Your task to perform on an android device: see tabs open on other devices in the chrome app Image 0: 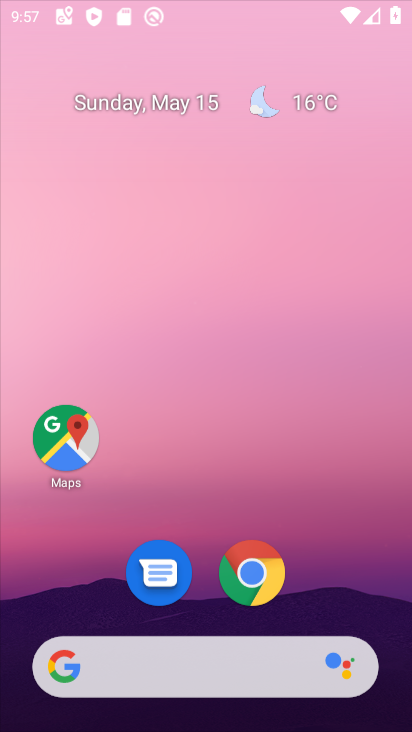
Step 0: press home button
Your task to perform on an android device: see tabs open on other devices in the chrome app Image 1: 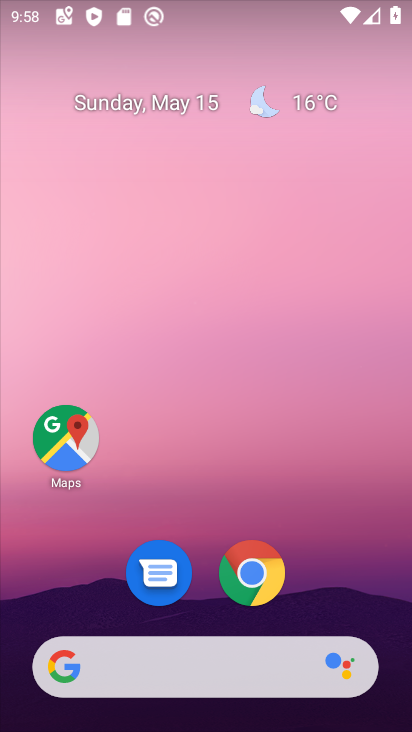
Step 1: click (251, 570)
Your task to perform on an android device: see tabs open on other devices in the chrome app Image 2: 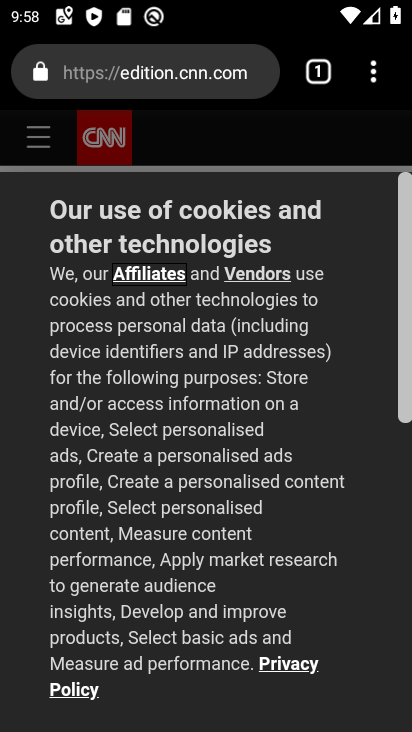
Step 2: task complete